Your task to perform on an android device: turn off notifications in google photos Image 0: 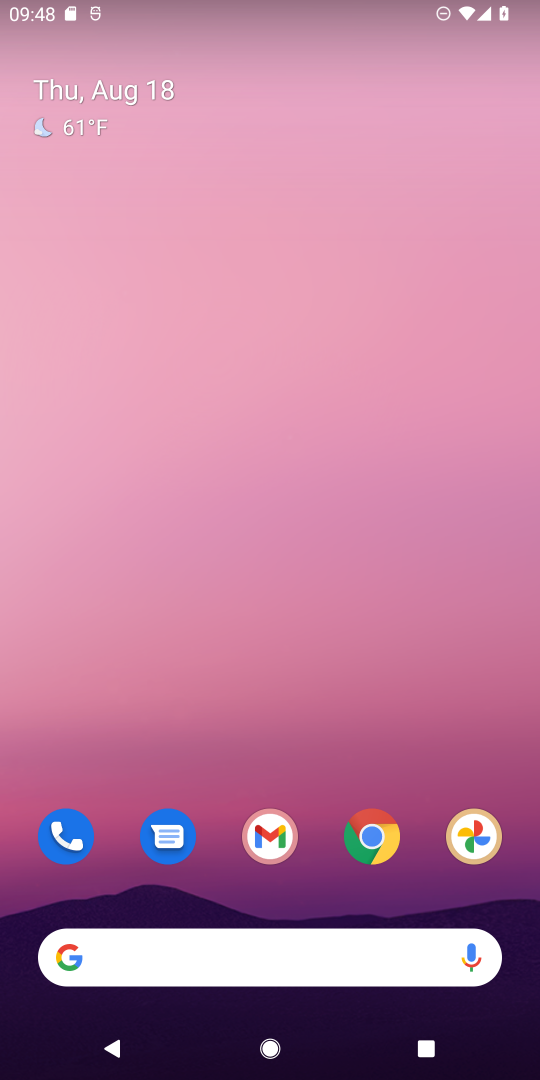
Step 0: drag from (215, 879) to (296, 128)
Your task to perform on an android device: turn off notifications in google photos Image 1: 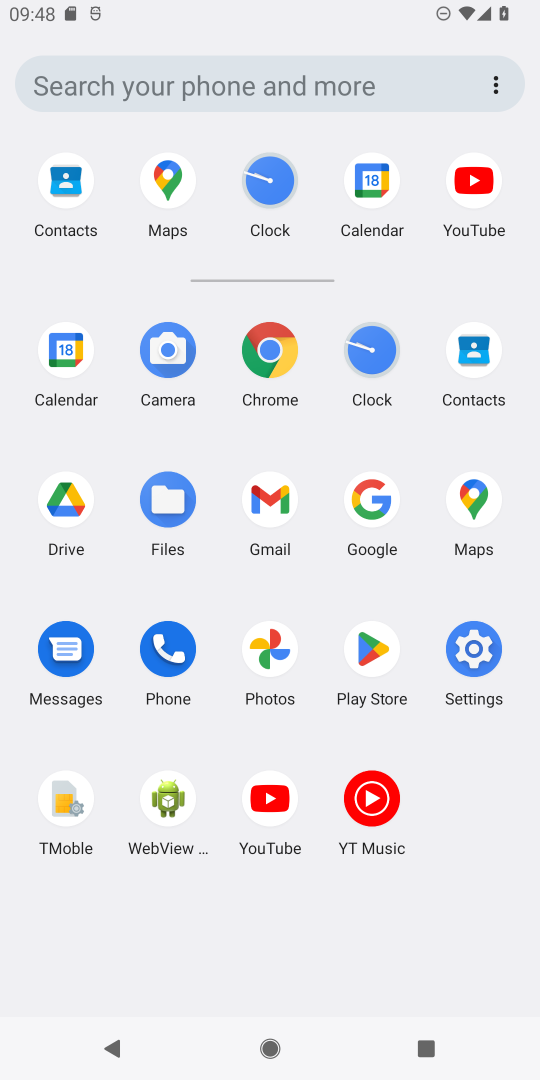
Step 1: click (267, 646)
Your task to perform on an android device: turn off notifications in google photos Image 2: 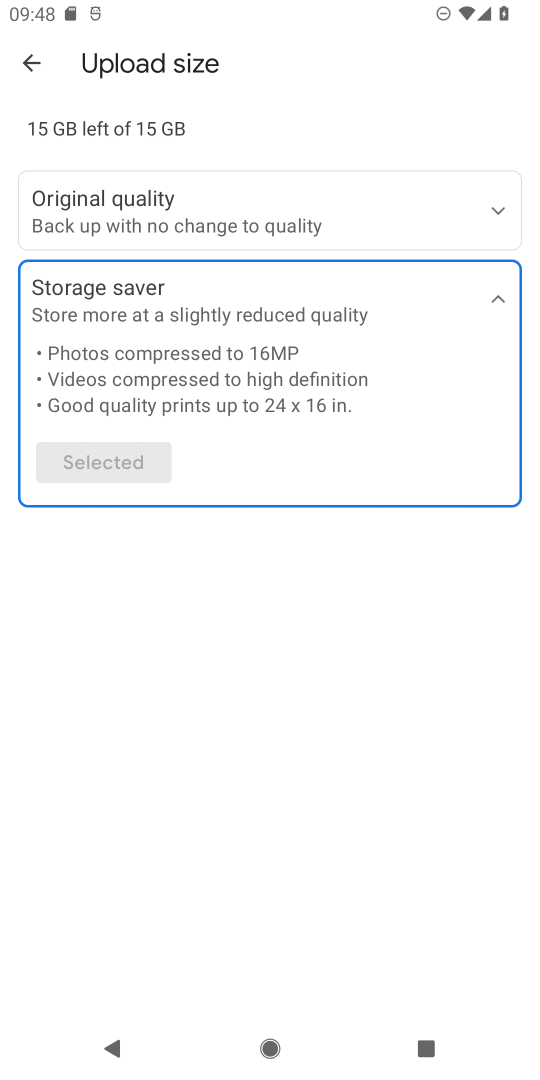
Step 2: click (25, 52)
Your task to perform on an android device: turn off notifications in google photos Image 3: 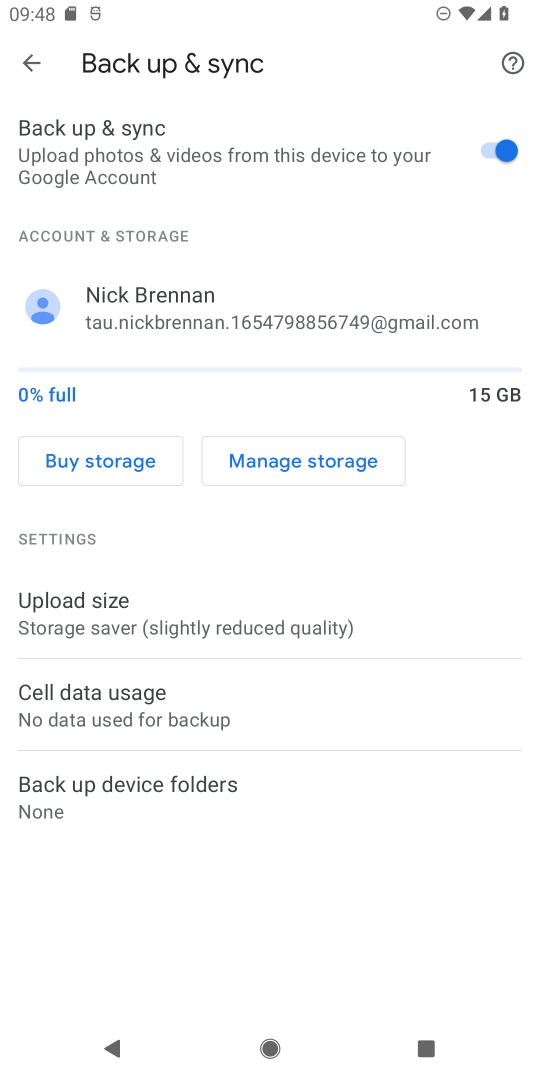
Step 3: click (28, 53)
Your task to perform on an android device: turn off notifications in google photos Image 4: 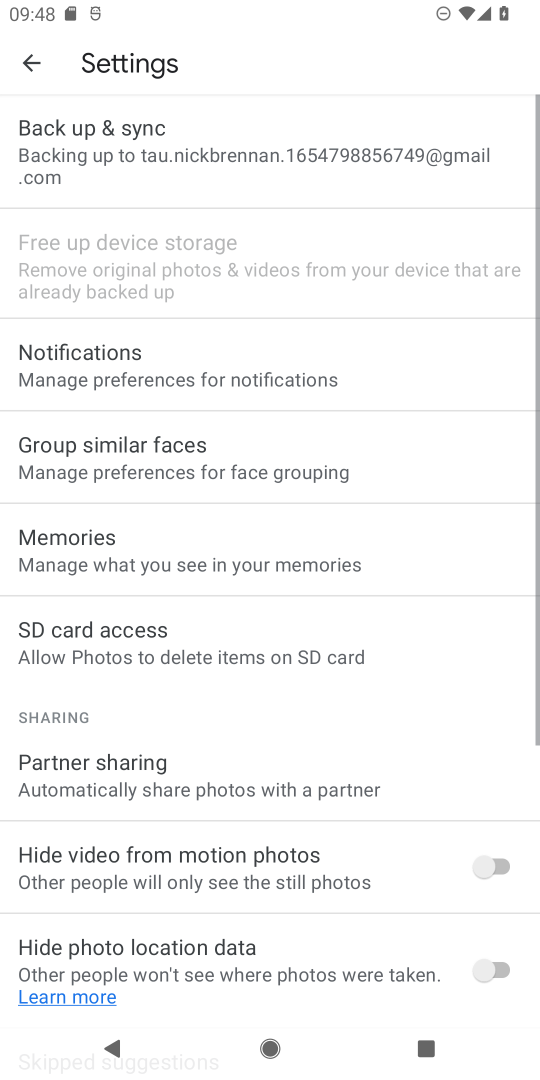
Step 4: click (28, 53)
Your task to perform on an android device: turn off notifications in google photos Image 5: 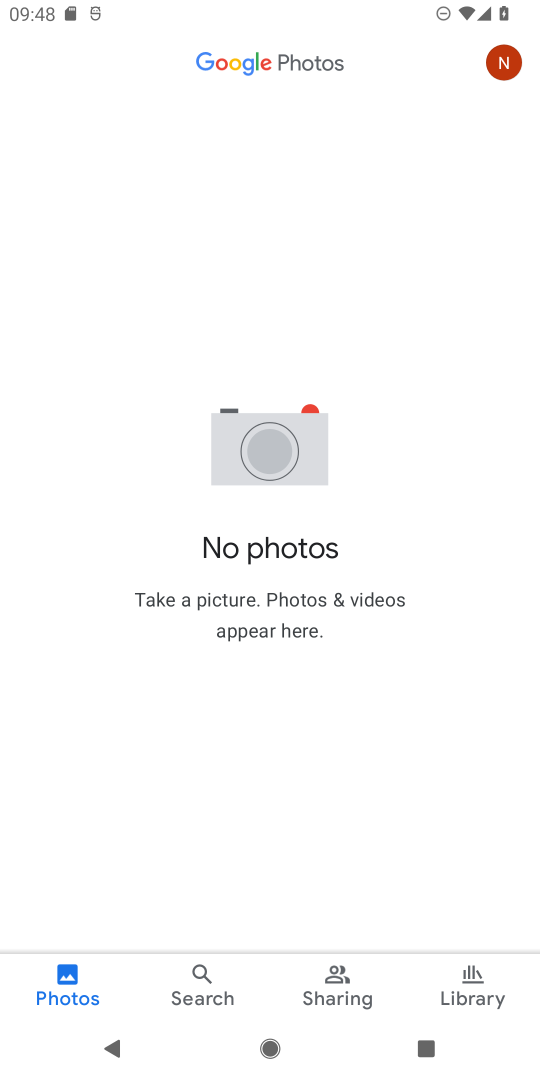
Step 5: click (517, 50)
Your task to perform on an android device: turn off notifications in google photos Image 6: 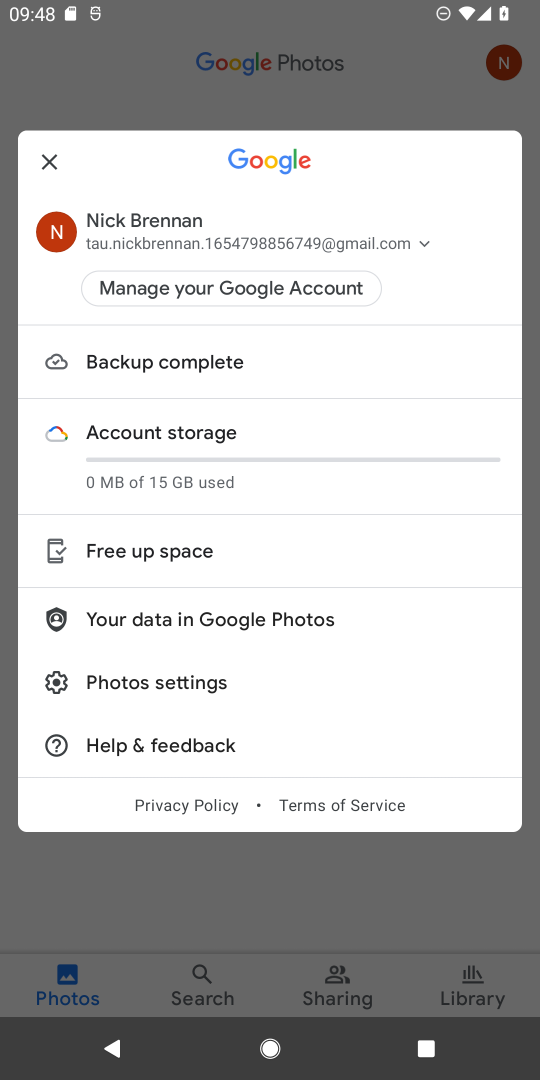
Step 6: click (161, 686)
Your task to perform on an android device: turn off notifications in google photos Image 7: 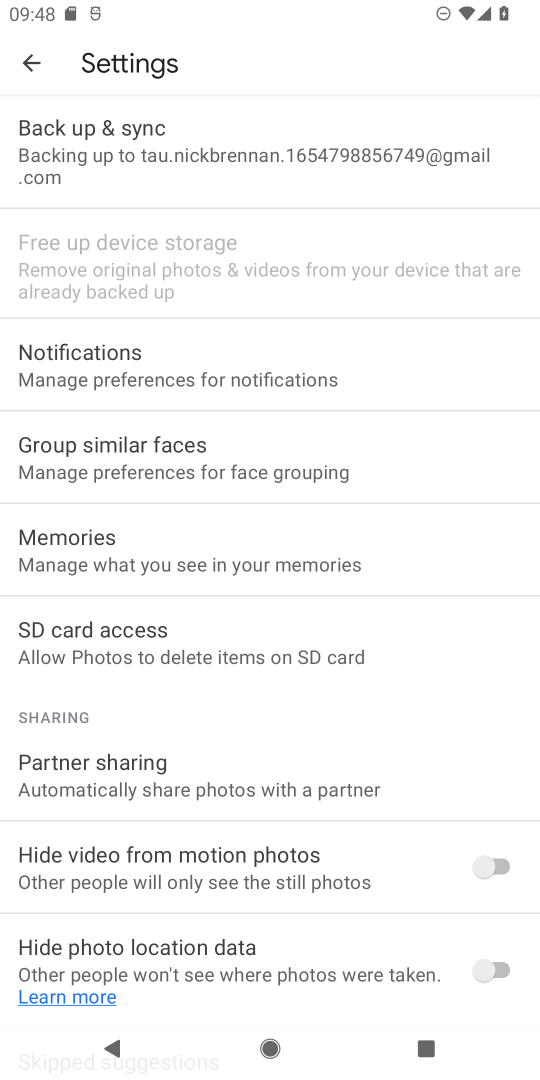
Step 7: click (137, 382)
Your task to perform on an android device: turn off notifications in google photos Image 8: 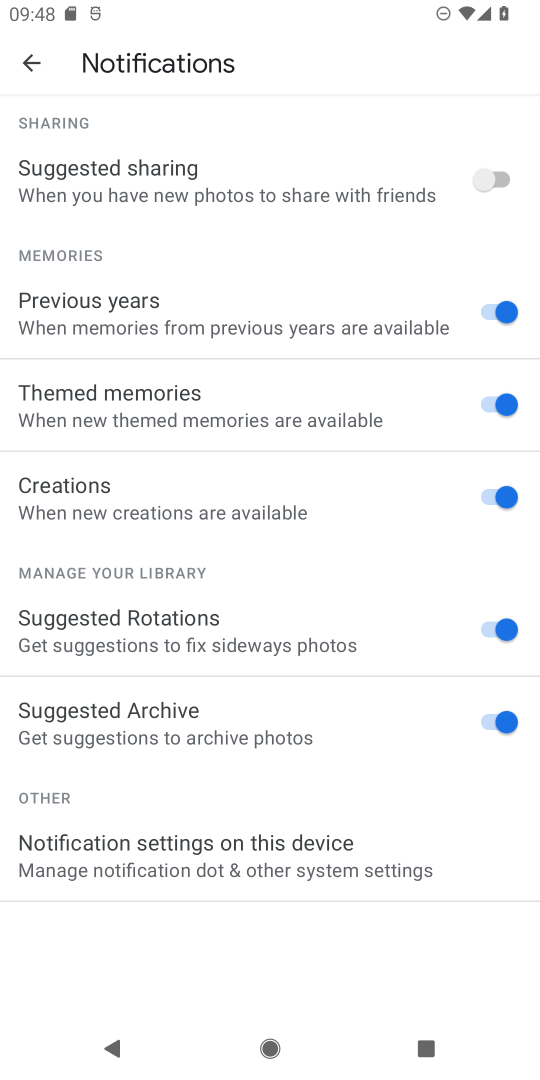
Step 8: click (235, 865)
Your task to perform on an android device: turn off notifications in google photos Image 9: 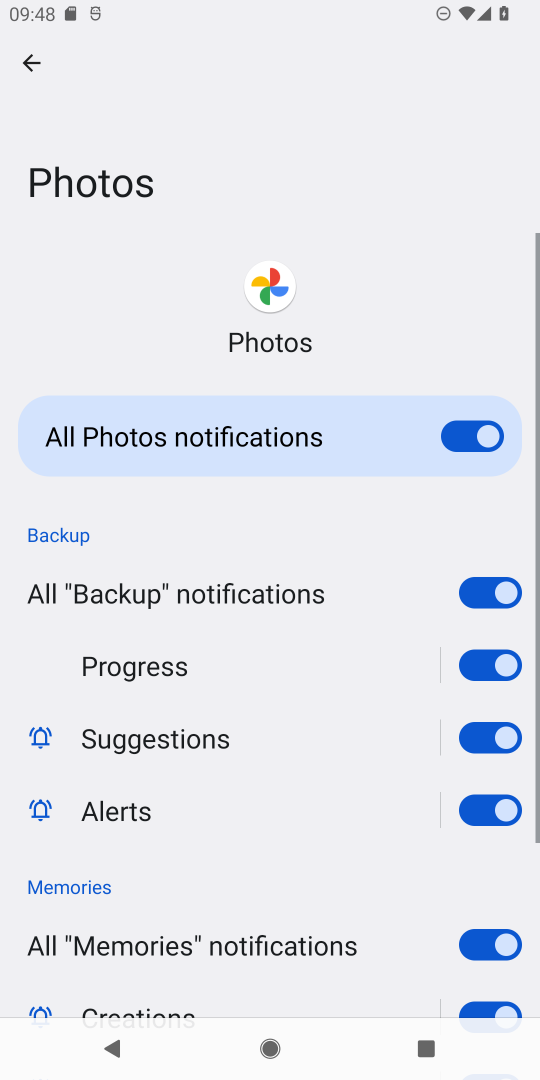
Step 9: click (461, 453)
Your task to perform on an android device: turn off notifications in google photos Image 10: 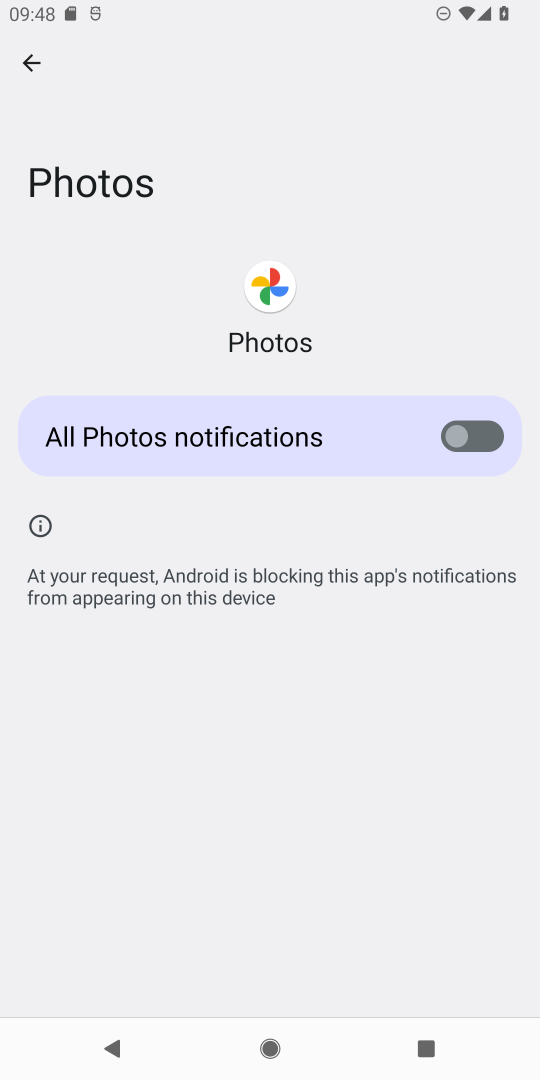
Step 10: task complete